Your task to perform on an android device: turn off notifications in google photos Image 0: 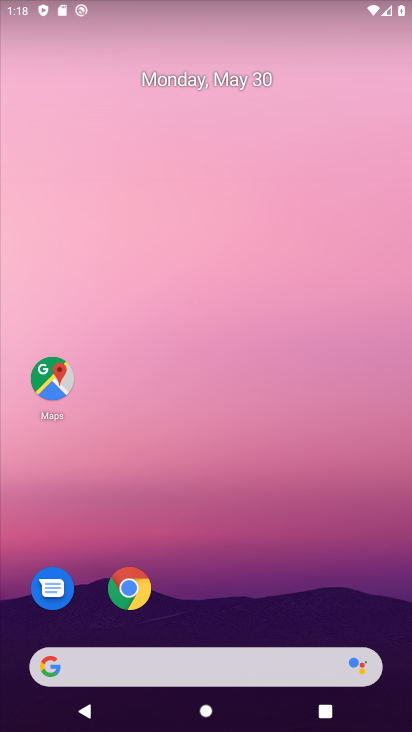
Step 0: drag from (217, 563) to (231, 135)
Your task to perform on an android device: turn off notifications in google photos Image 1: 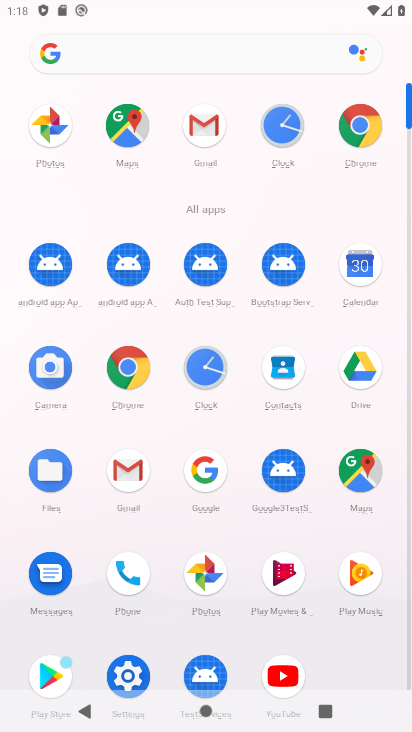
Step 1: click (49, 124)
Your task to perform on an android device: turn off notifications in google photos Image 2: 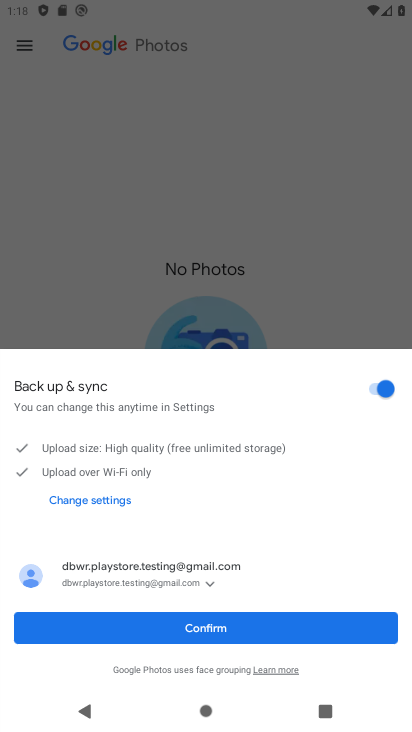
Step 2: click (200, 634)
Your task to perform on an android device: turn off notifications in google photos Image 3: 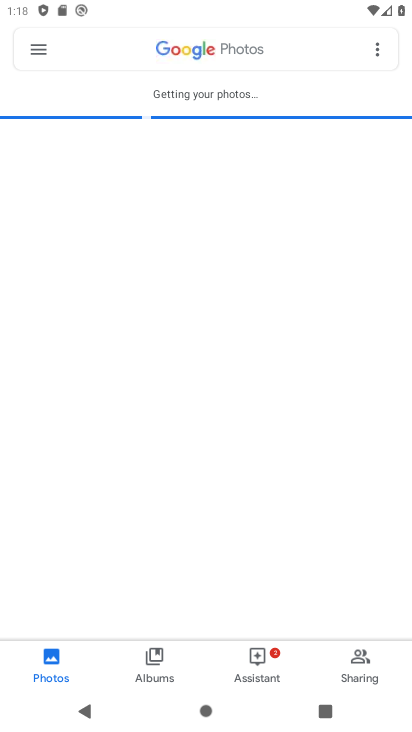
Step 3: click (34, 52)
Your task to perform on an android device: turn off notifications in google photos Image 4: 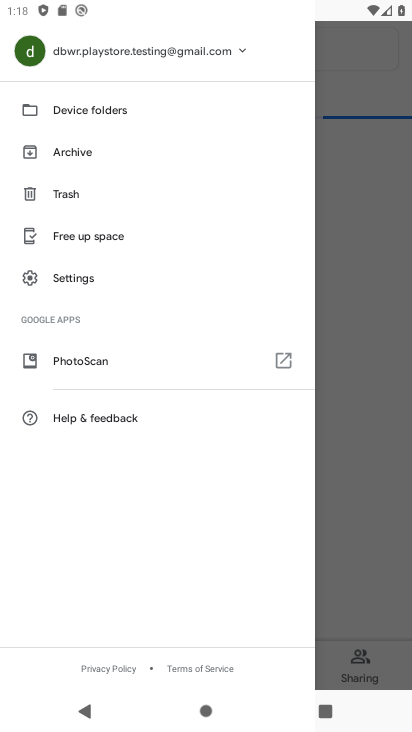
Step 4: click (74, 274)
Your task to perform on an android device: turn off notifications in google photos Image 5: 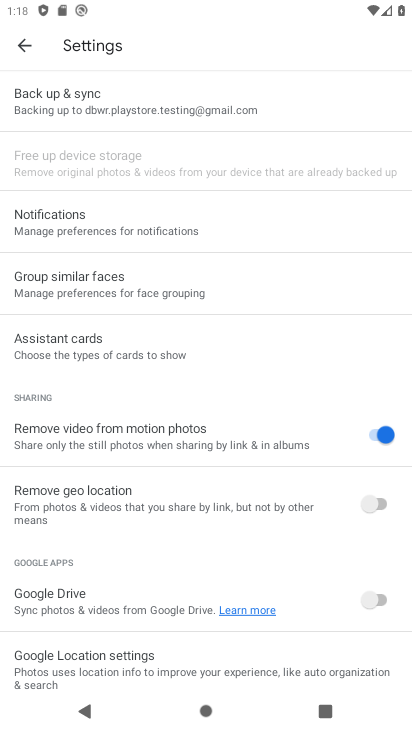
Step 5: click (86, 235)
Your task to perform on an android device: turn off notifications in google photos Image 6: 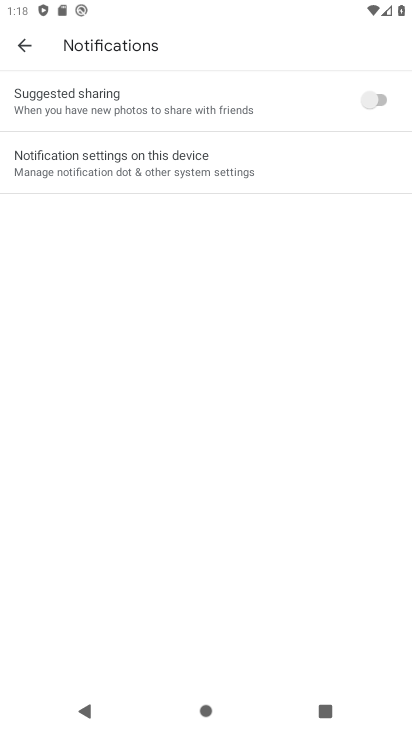
Step 6: click (194, 183)
Your task to perform on an android device: turn off notifications in google photos Image 7: 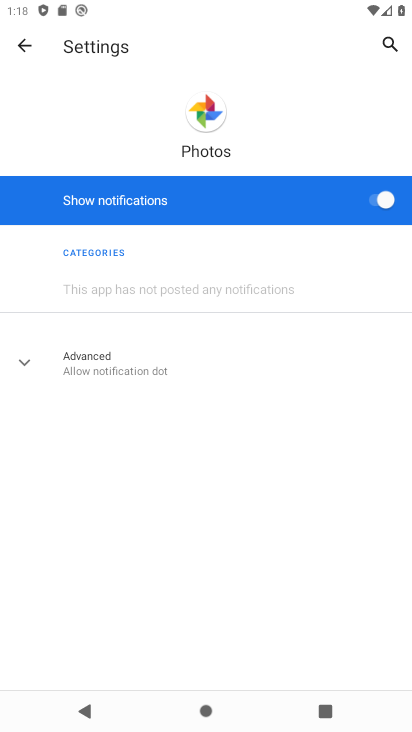
Step 7: click (376, 201)
Your task to perform on an android device: turn off notifications in google photos Image 8: 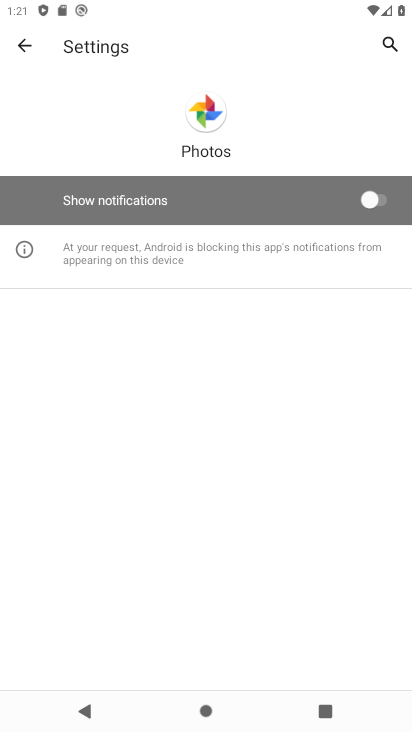
Step 8: task complete